Your task to perform on an android device: open the mobile data screen to see how much data has been used Image 0: 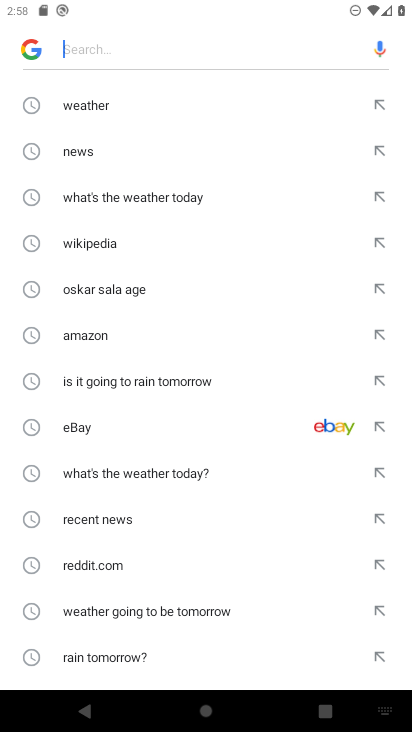
Step 0: press home button
Your task to perform on an android device: open the mobile data screen to see how much data has been used Image 1: 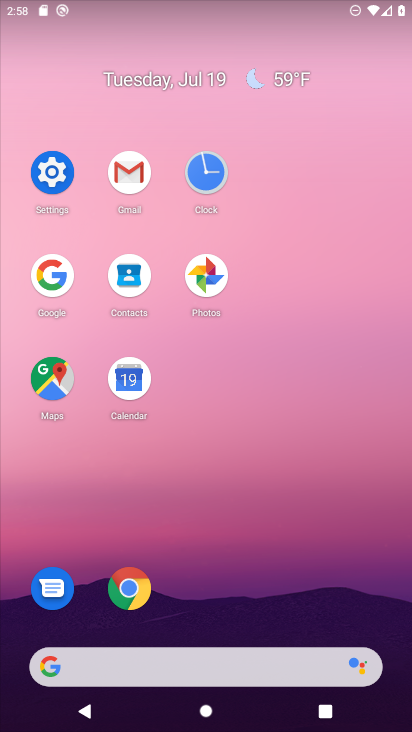
Step 1: click (66, 183)
Your task to perform on an android device: open the mobile data screen to see how much data has been used Image 2: 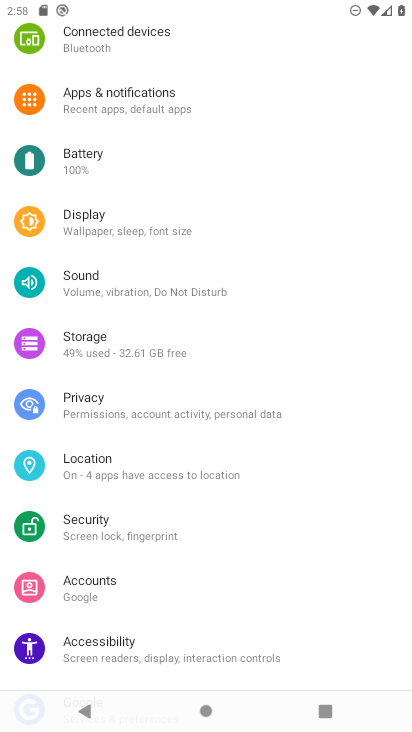
Step 2: drag from (266, 123) to (299, 522)
Your task to perform on an android device: open the mobile data screen to see how much data has been used Image 3: 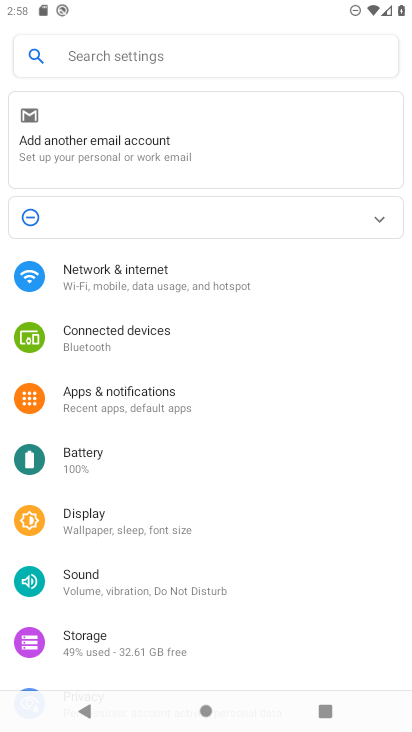
Step 3: click (124, 295)
Your task to perform on an android device: open the mobile data screen to see how much data has been used Image 4: 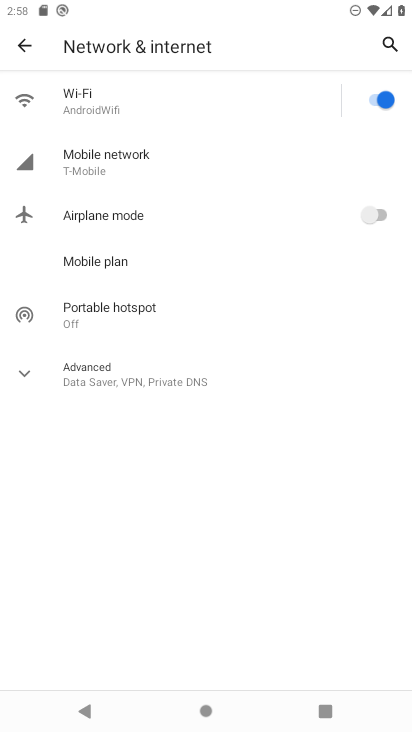
Step 4: click (181, 160)
Your task to perform on an android device: open the mobile data screen to see how much data has been used Image 5: 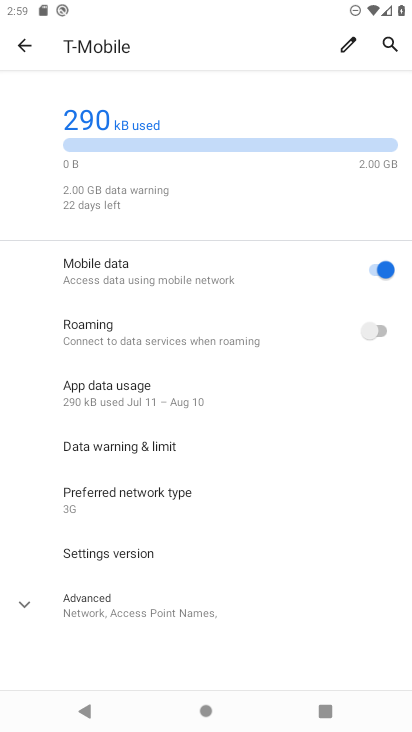
Step 5: task complete